Your task to perform on an android device: Open maps Image 0: 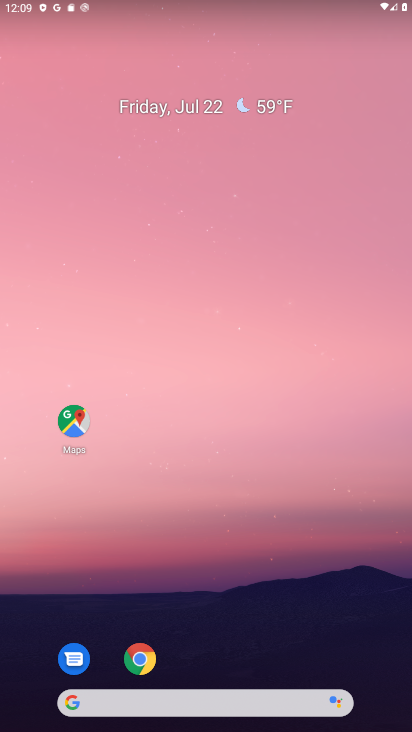
Step 0: drag from (225, 611) to (183, 0)
Your task to perform on an android device: Open maps Image 1: 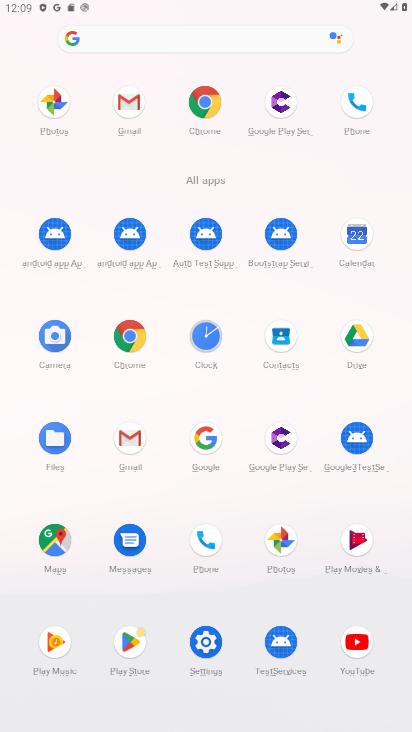
Step 1: click (51, 554)
Your task to perform on an android device: Open maps Image 2: 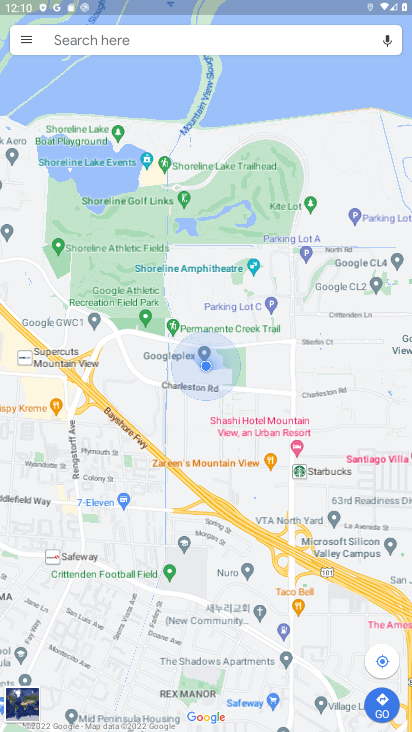
Step 2: task complete